Your task to perform on an android device: turn off notifications settings in the gmail app Image 0: 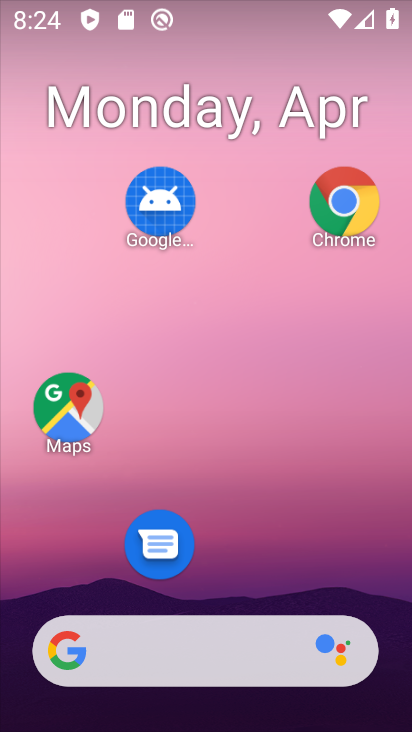
Step 0: drag from (219, 2) to (257, 16)
Your task to perform on an android device: turn off notifications settings in the gmail app Image 1: 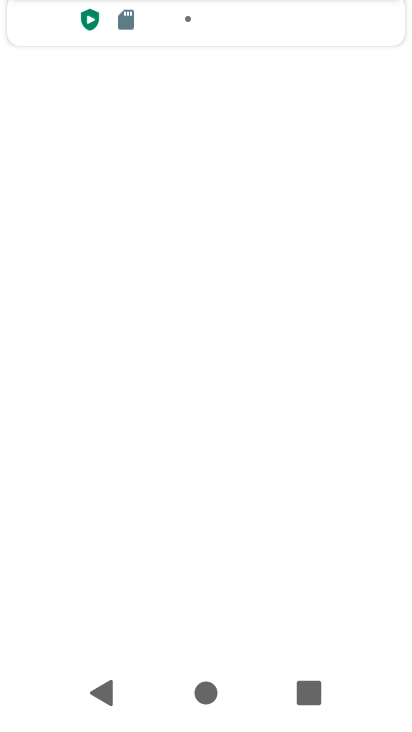
Step 1: press home button
Your task to perform on an android device: turn off notifications settings in the gmail app Image 2: 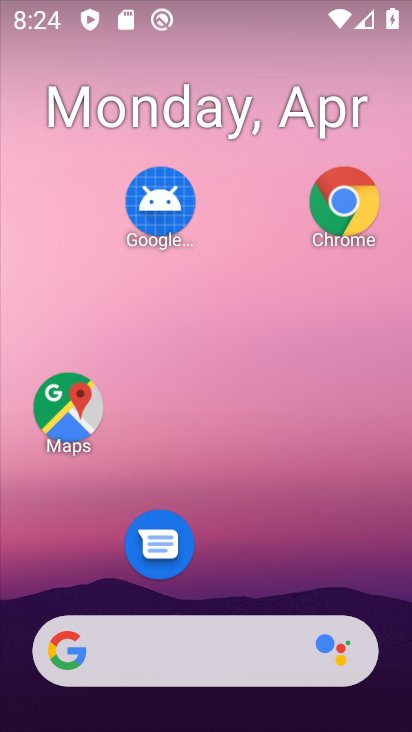
Step 2: drag from (219, 589) to (386, 58)
Your task to perform on an android device: turn off notifications settings in the gmail app Image 3: 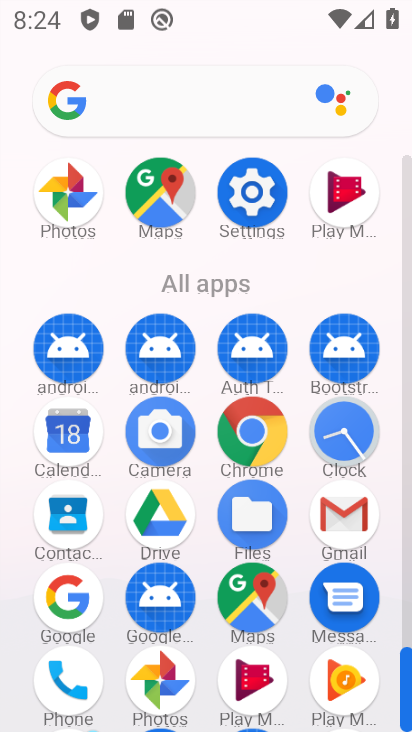
Step 3: click (344, 526)
Your task to perform on an android device: turn off notifications settings in the gmail app Image 4: 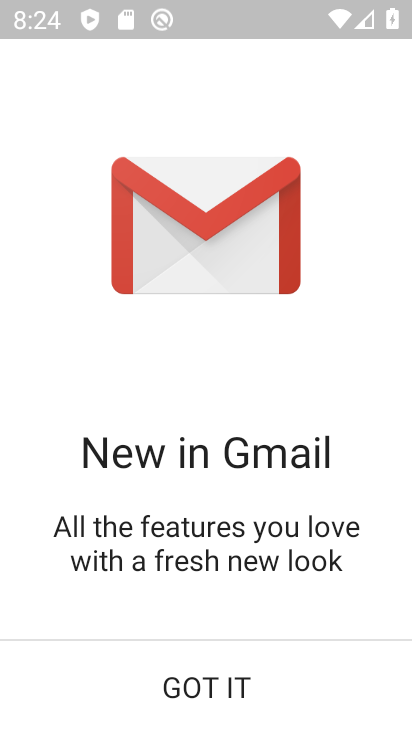
Step 4: click (198, 677)
Your task to perform on an android device: turn off notifications settings in the gmail app Image 5: 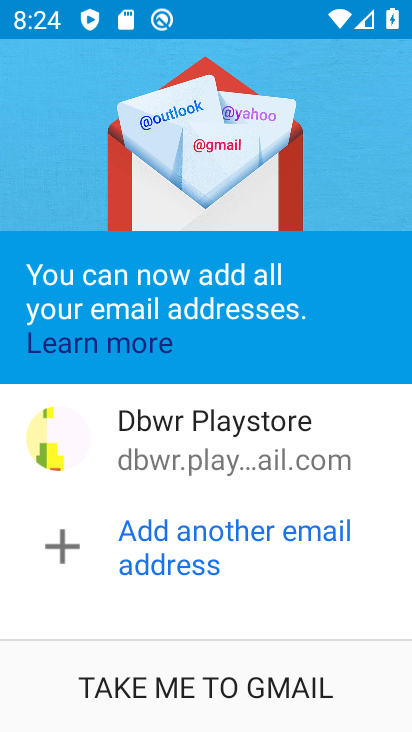
Step 5: click (198, 677)
Your task to perform on an android device: turn off notifications settings in the gmail app Image 6: 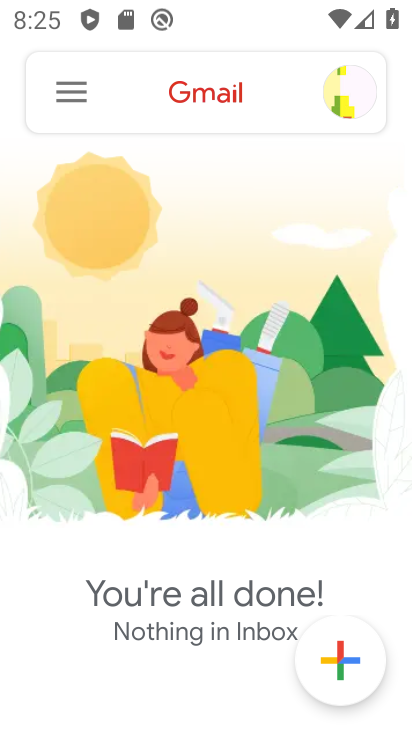
Step 6: click (60, 77)
Your task to perform on an android device: turn off notifications settings in the gmail app Image 7: 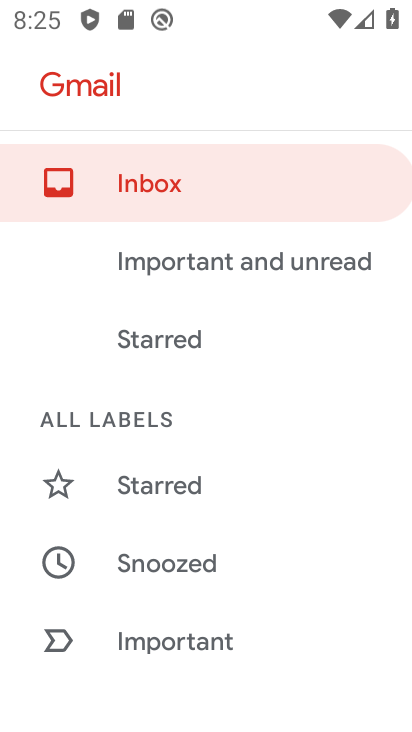
Step 7: drag from (287, 617) to (219, 33)
Your task to perform on an android device: turn off notifications settings in the gmail app Image 8: 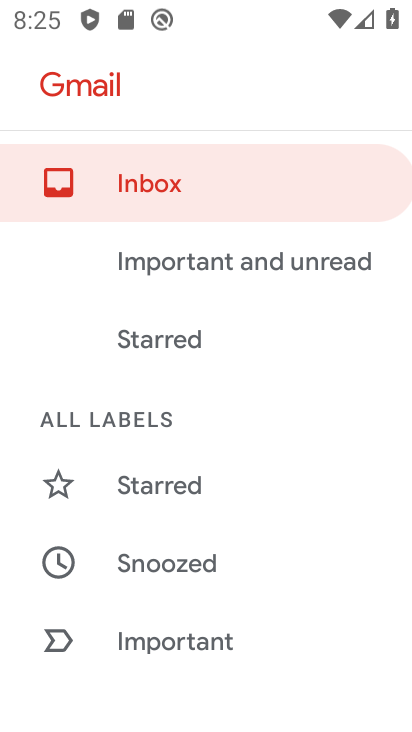
Step 8: drag from (293, 620) to (257, 22)
Your task to perform on an android device: turn off notifications settings in the gmail app Image 9: 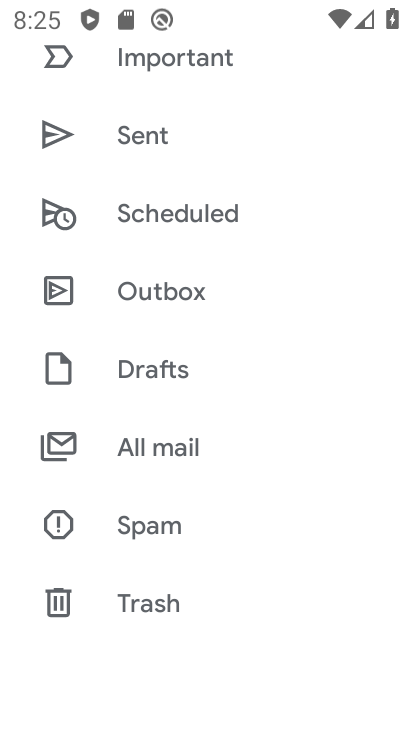
Step 9: drag from (237, 622) to (236, 47)
Your task to perform on an android device: turn off notifications settings in the gmail app Image 10: 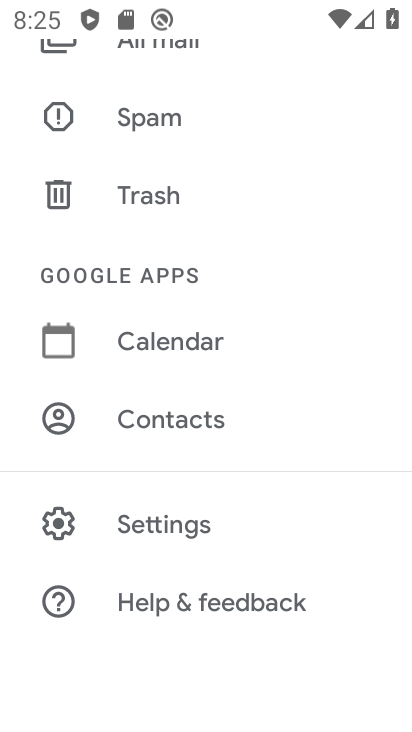
Step 10: click (171, 544)
Your task to perform on an android device: turn off notifications settings in the gmail app Image 11: 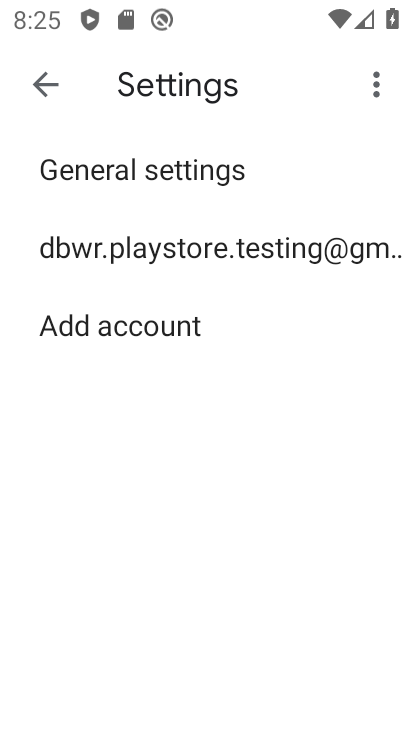
Step 11: click (148, 161)
Your task to perform on an android device: turn off notifications settings in the gmail app Image 12: 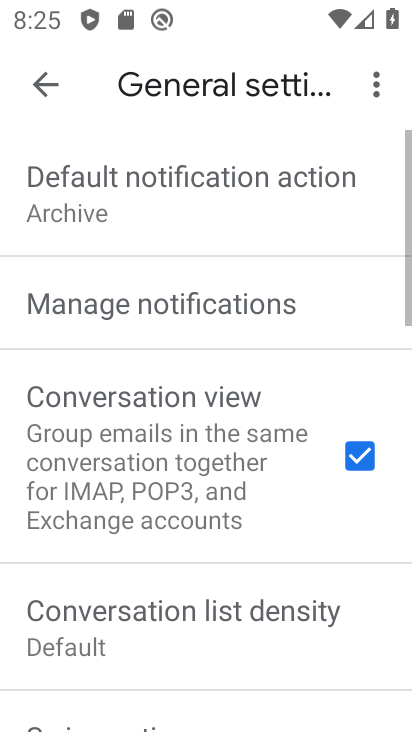
Step 12: click (183, 316)
Your task to perform on an android device: turn off notifications settings in the gmail app Image 13: 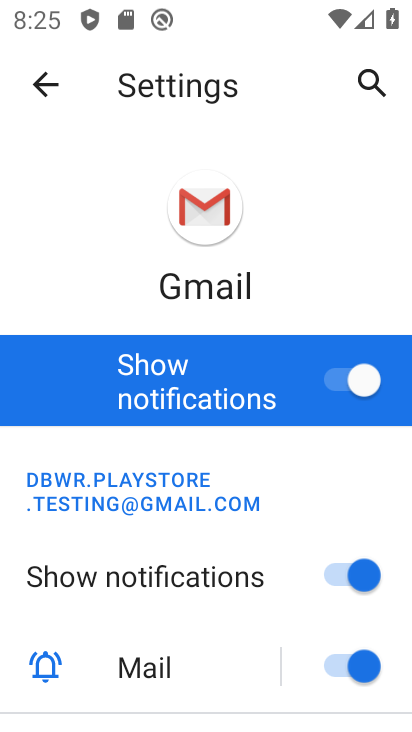
Step 13: click (364, 374)
Your task to perform on an android device: turn off notifications settings in the gmail app Image 14: 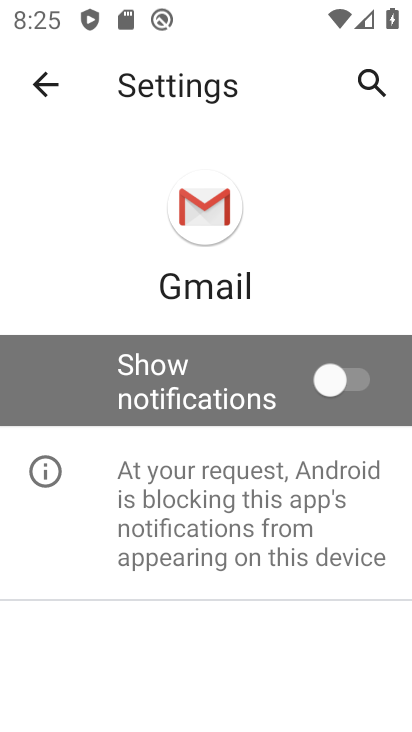
Step 14: task complete